Your task to perform on an android device: Open my contact list Image 0: 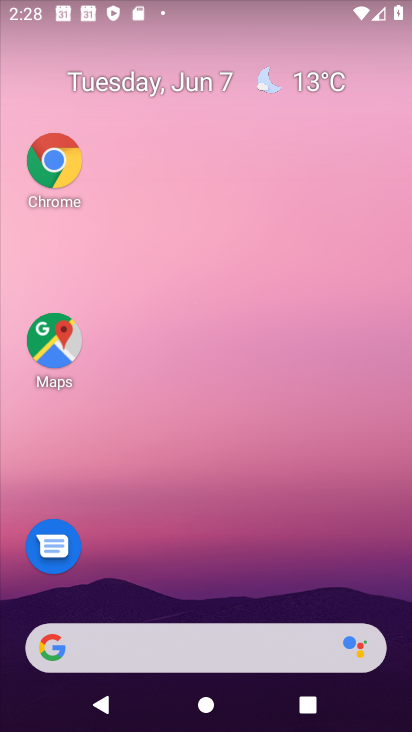
Step 0: drag from (272, 570) to (330, 160)
Your task to perform on an android device: Open my contact list Image 1: 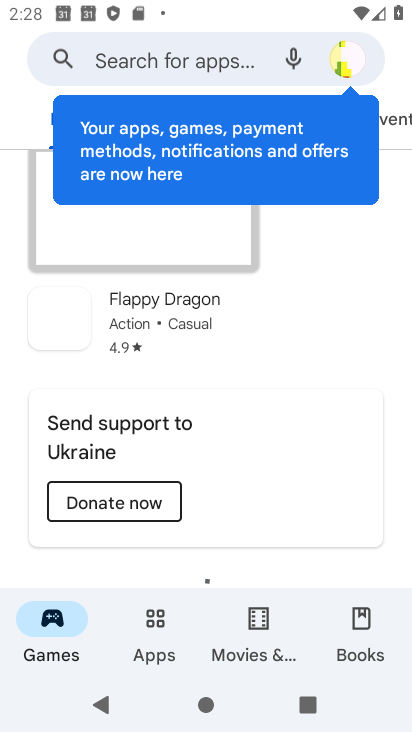
Step 1: drag from (199, 599) to (288, 134)
Your task to perform on an android device: Open my contact list Image 2: 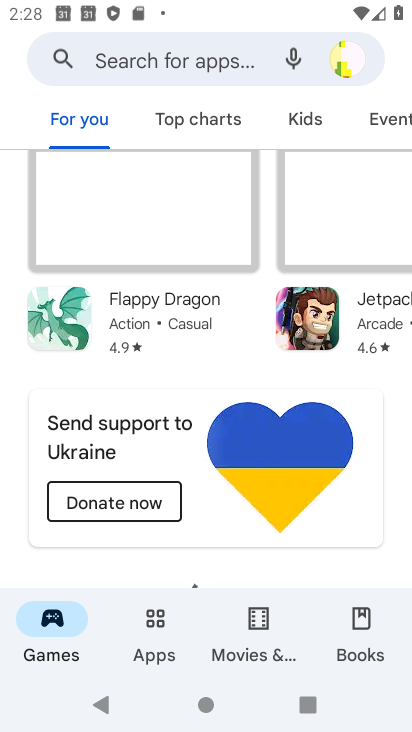
Step 2: press home button
Your task to perform on an android device: Open my contact list Image 3: 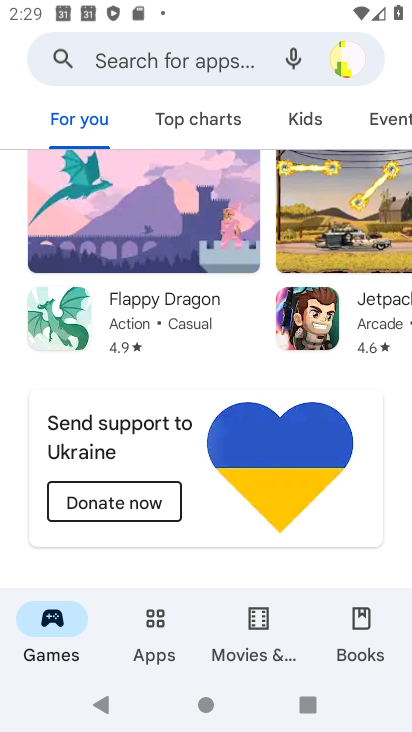
Step 3: drag from (202, 425) to (206, 313)
Your task to perform on an android device: Open my contact list Image 4: 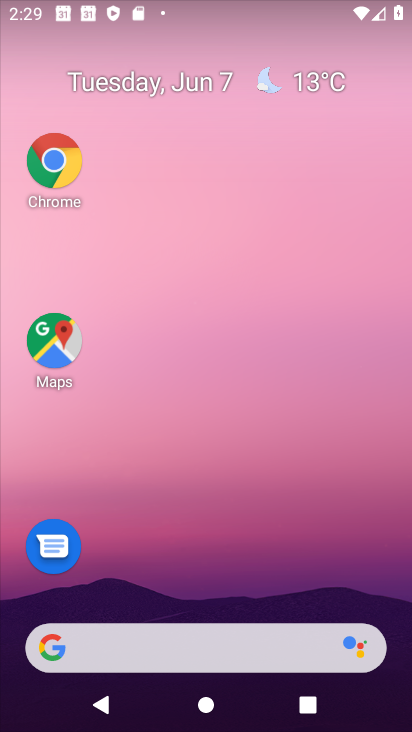
Step 4: drag from (184, 624) to (292, 87)
Your task to perform on an android device: Open my contact list Image 5: 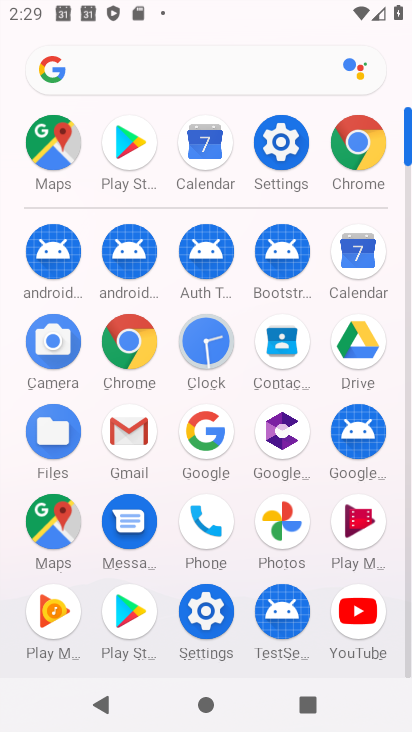
Step 5: click (280, 343)
Your task to perform on an android device: Open my contact list Image 6: 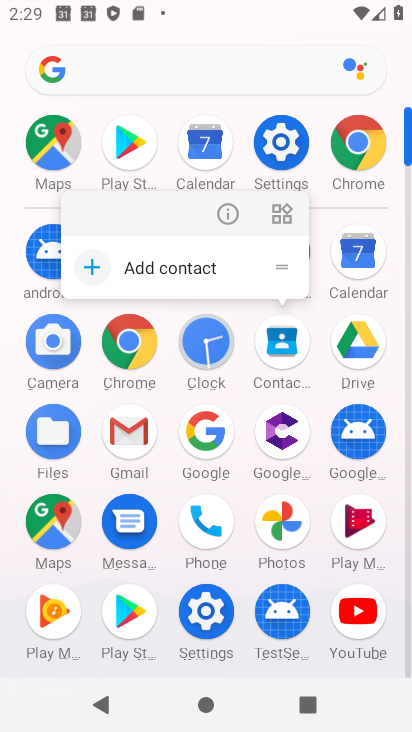
Step 6: click (225, 212)
Your task to perform on an android device: Open my contact list Image 7: 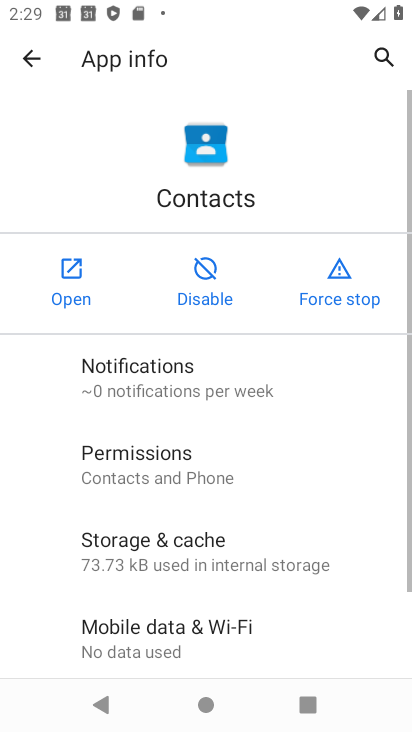
Step 7: click (53, 283)
Your task to perform on an android device: Open my contact list Image 8: 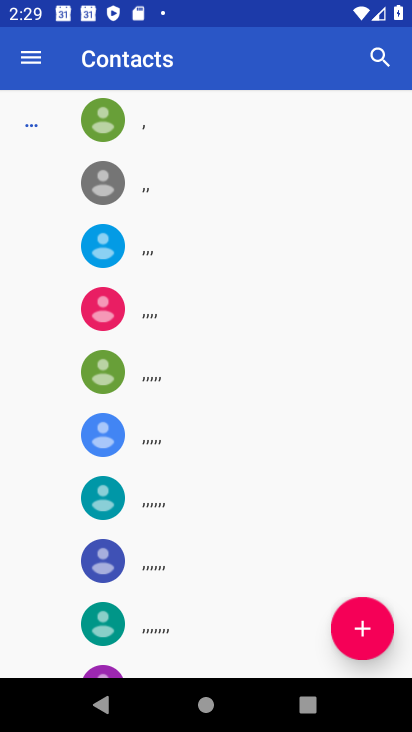
Step 8: task complete